Your task to perform on an android device: find snoozed emails in the gmail app Image 0: 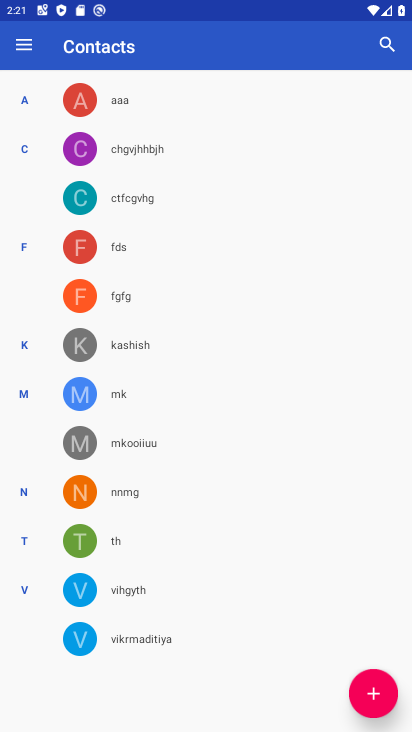
Step 0: press home button
Your task to perform on an android device: find snoozed emails in the gmail app Image 1: 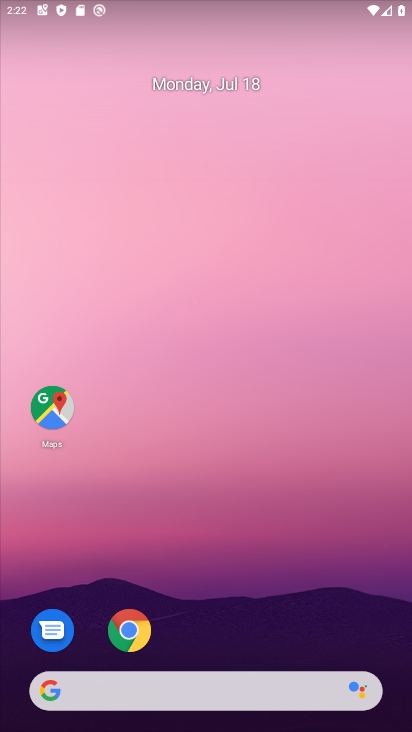
Step 1: drag from (324, 602) to (147, 40)
Your task to perform on an android device: find snoozed emails in the gmail app Image 2: 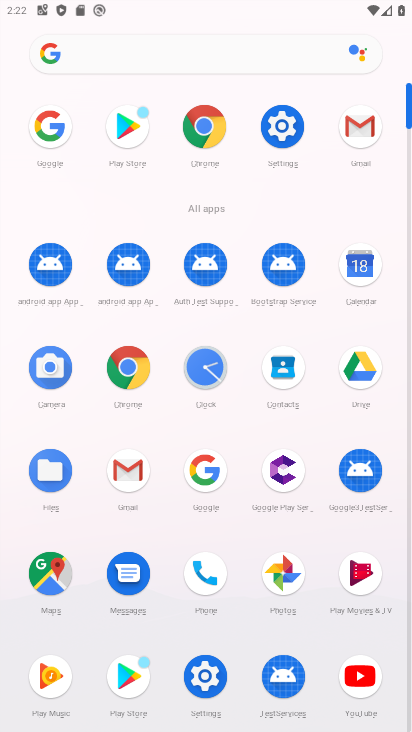
Step 2: click (151, 467)
Your task to perform on an android device: find snoozed emails in the gmail app Image 3: 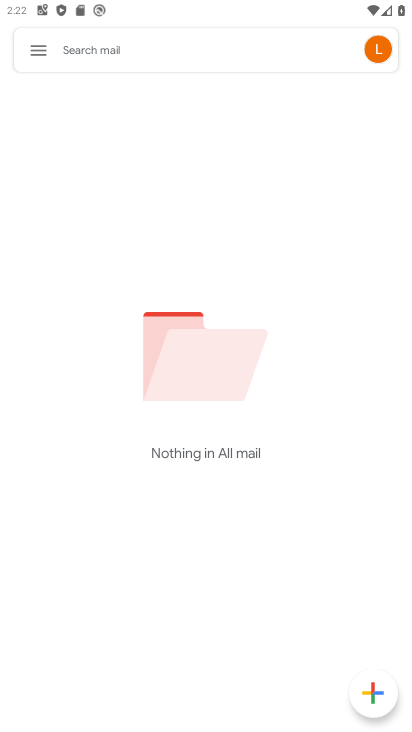
Step 3: click (35, 59)
Your task to perform on an android device: find snoozed emails in the gmail app Image 4: 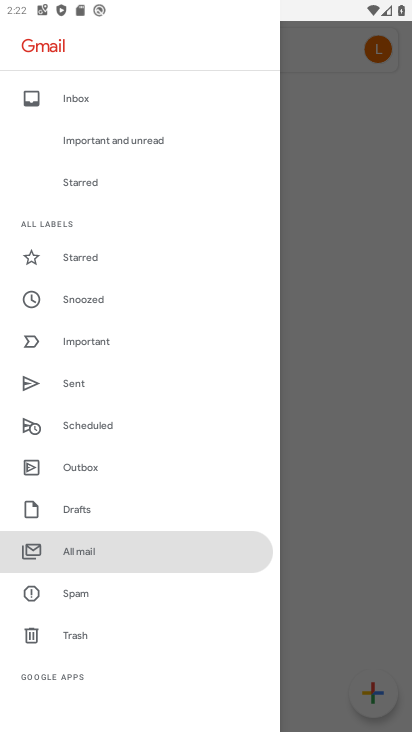
Step 4: click (84, 311)
Your task to perform on an android device: find snoozed emails in the gmail app Image 5: 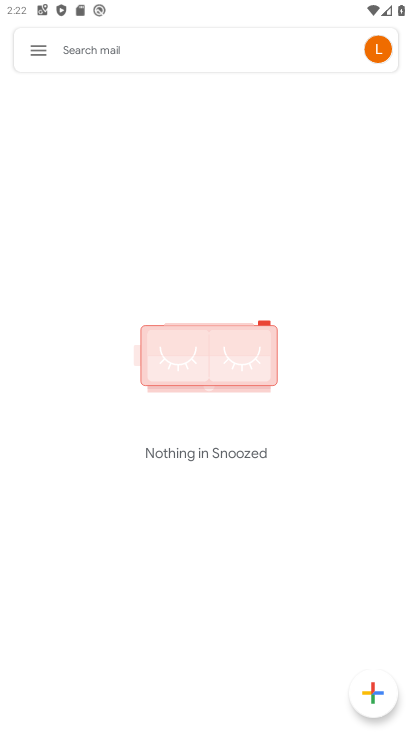
Step 5: task complete